Your task to perform on an android device: turn off translation in the chrome app Image 0: 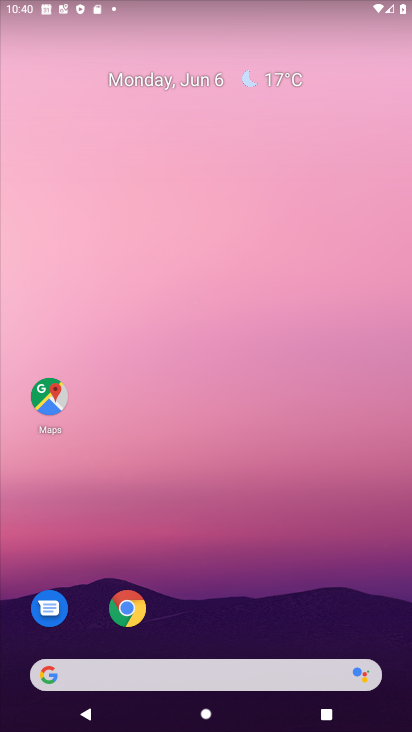
Step 0: drag from (250, 633) to (211, 119)
Your task to perform on an android device: turn off translation in the chrome app Image 1: 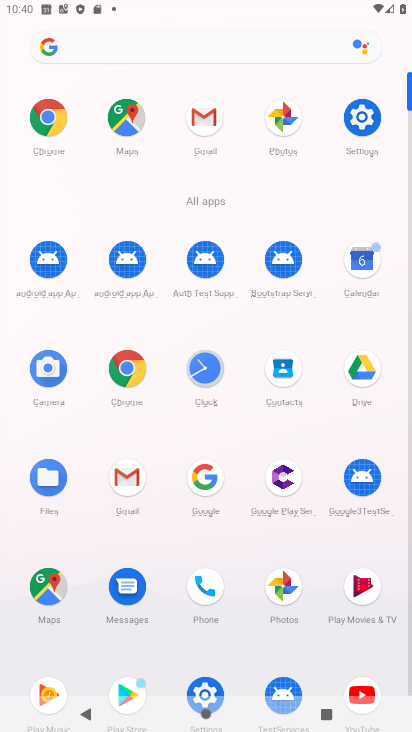
Step 1: click (54, 128)
Your task to perform on an android device: turn off translation in the chrome app Image 2: 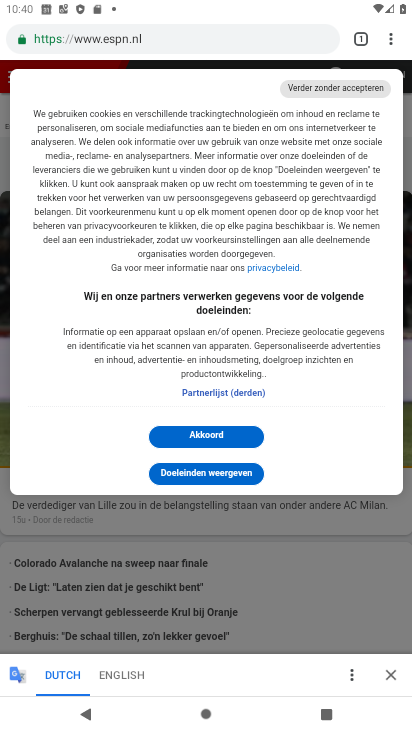
Step 2: click (398, 40)
Your task to perform on an android device: turn off translation in the chrome app Image 3: 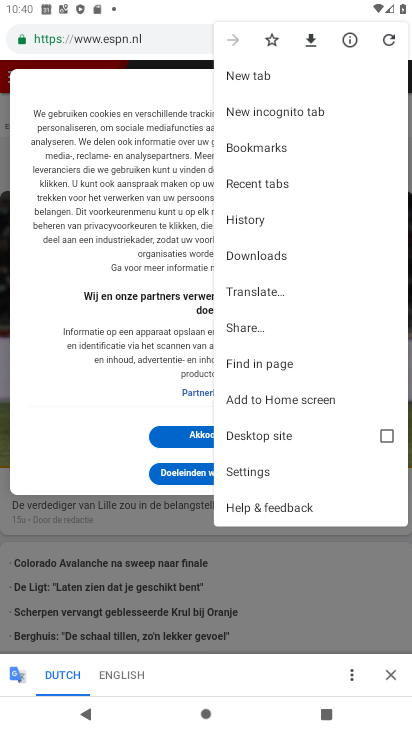
Step 3: click (264, 477)
Your task to perform on an android device: turn off translation in the chrome app Image 4: 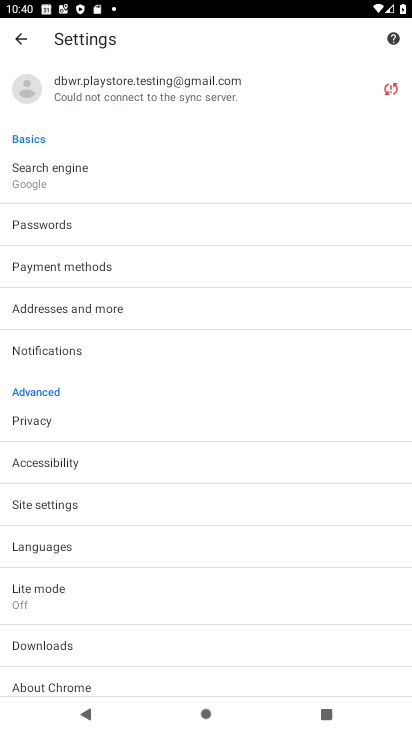
Step 4: click (172, 547)
Your task to perform on an android device: turn off translation in the chrome app Image 5: 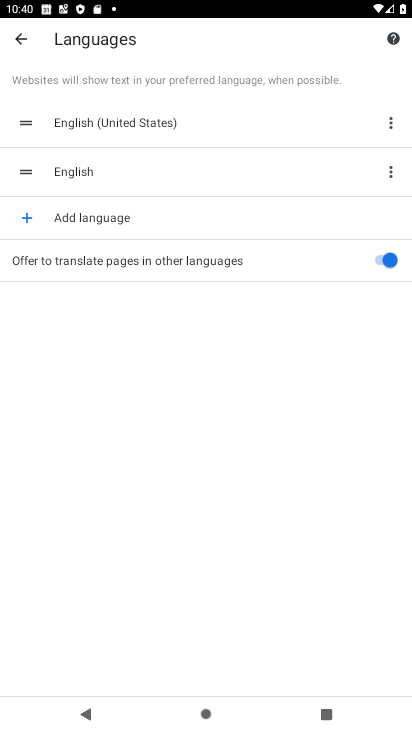
Step 5: click (388, 271)
Your task to perform on an android device: turn off translation in the chrome app Image 6: 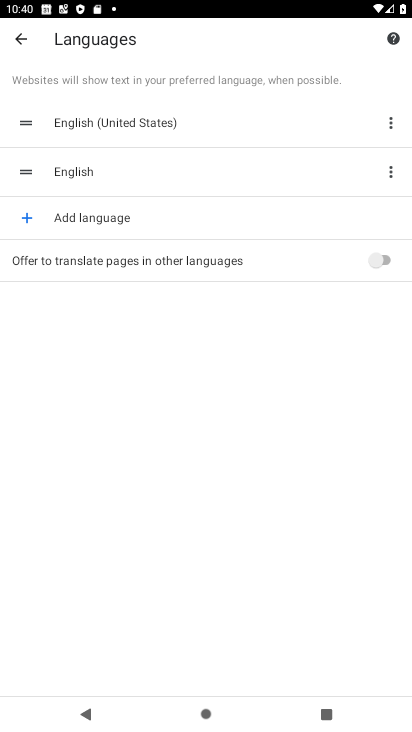
Step 6: task complete